Your task to perform on an android device: set an alarm Image 0: 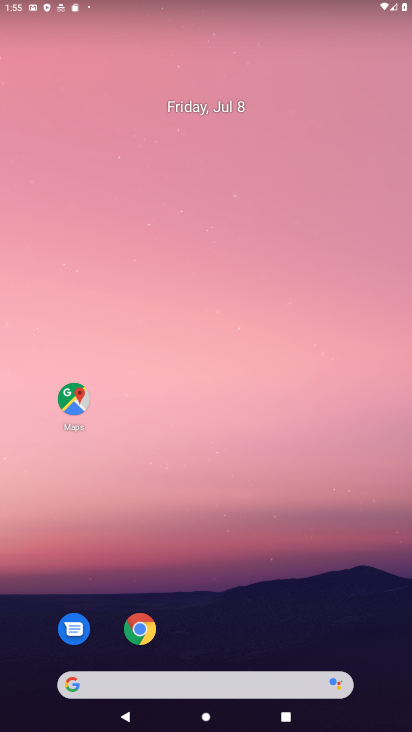
Step 0: drag from (231, 679) to (326, 186)
Your task to perform on an android device: set an alarm Image 1: 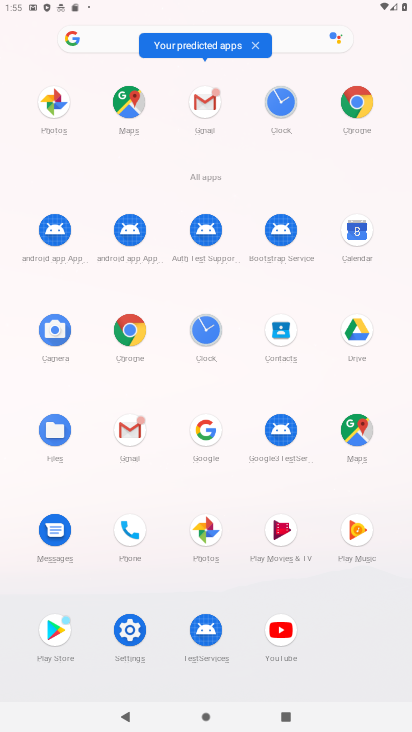
Step 1: click (218, 343)
Your task to perform on an android device: set an alarm Image 2: 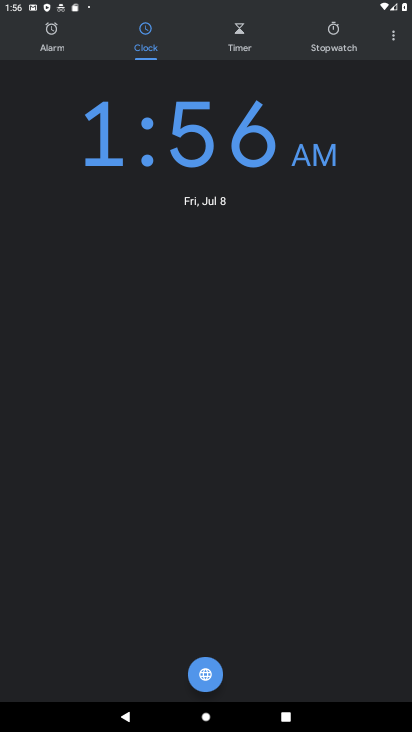
Step 2: click (72, 49)
Your task to perform on an android device: set an alarm Image 3: 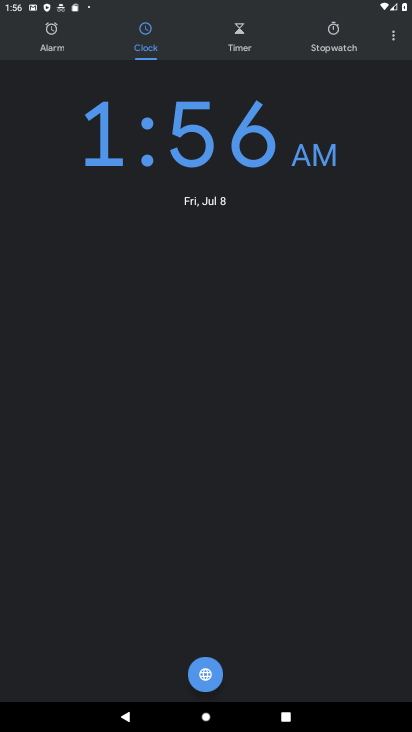
Step 3: click (65, 52)
Your task to perform on an android device: set an alarm Image 4: 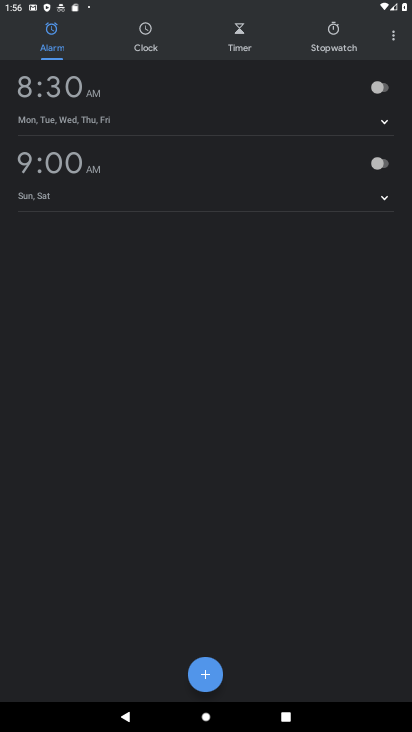
Step 4: click (395, 92)
Your task to perform on an android device: set an alarm Image 5: 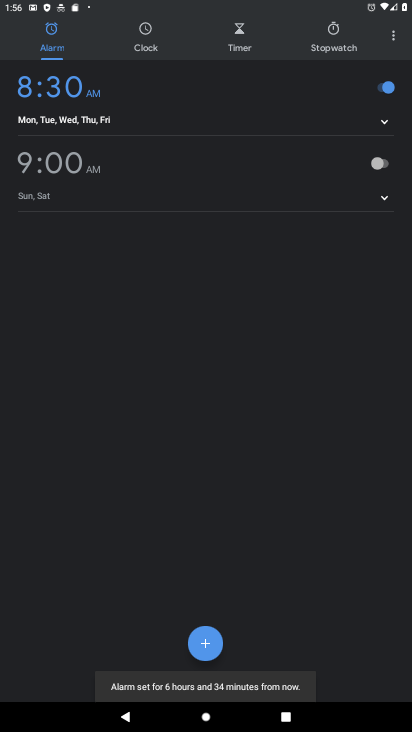
Step 5: click (379, 164)
Your task to perform on an android device: set an alarm Image 6: 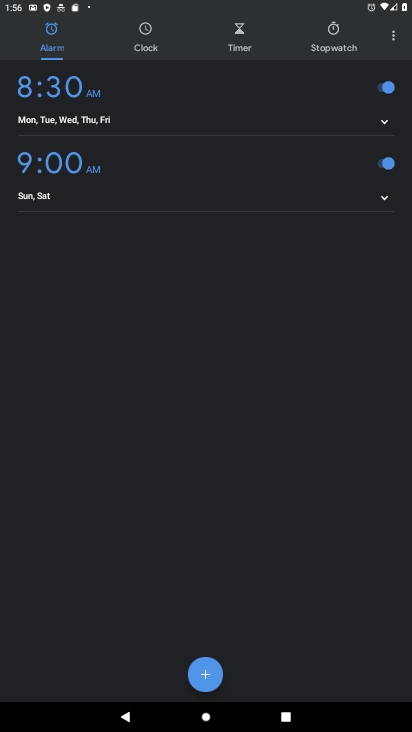
Step 6: task complete